Your task to perform on an android device: turn off wifi Image 0: 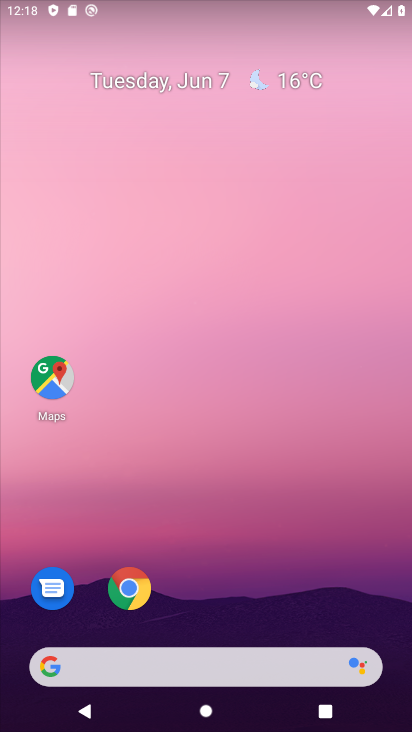
Step 0: drag from (308, 599) to (247, 114)
Your task to perform on an android device: turn off wifi Image 1: 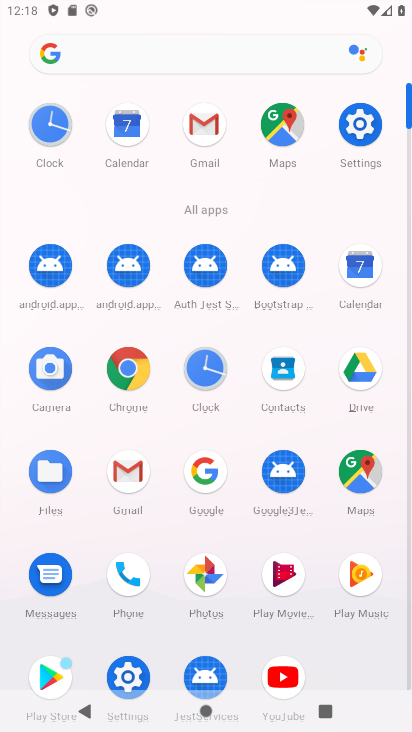
Step 1: click (358, 142)
Your task to perform on an android device: turn off wifi Image 2: 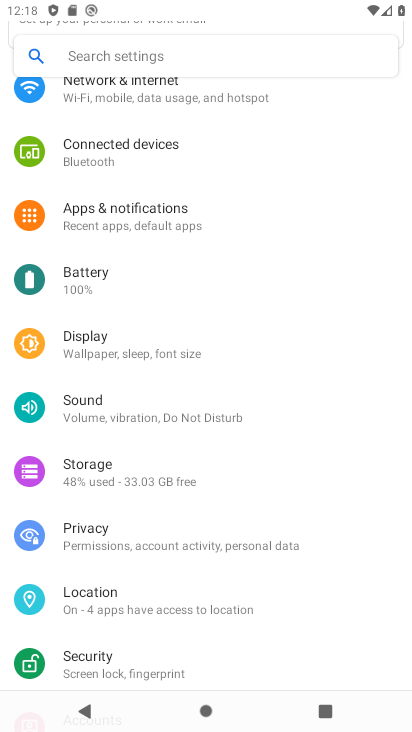
Step 2: click (196, 89)
Your task to perform on an android device: turn off wifi Image 3: 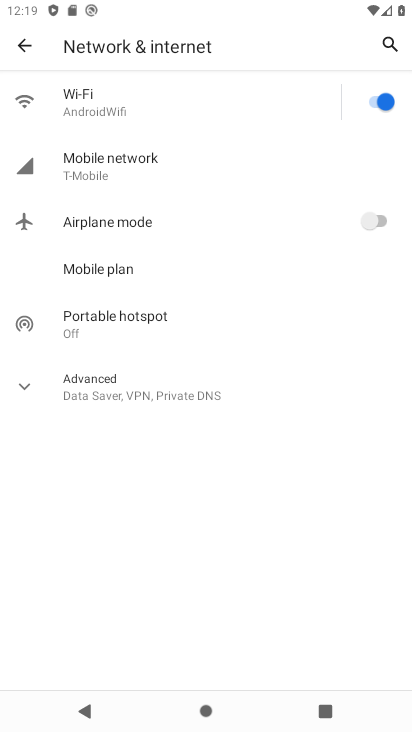
Step 3: task complete